Your task to perform on an android device: turn off notifications settings in the gmail app Image 0: 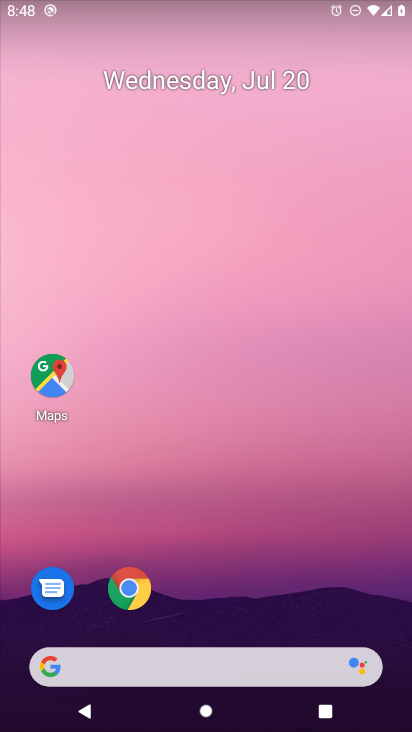
Step 0: drag from (30, 697) to (331, 17)
Your task to perform on an android device: turn off notifications settings in the gmail app Image 1: 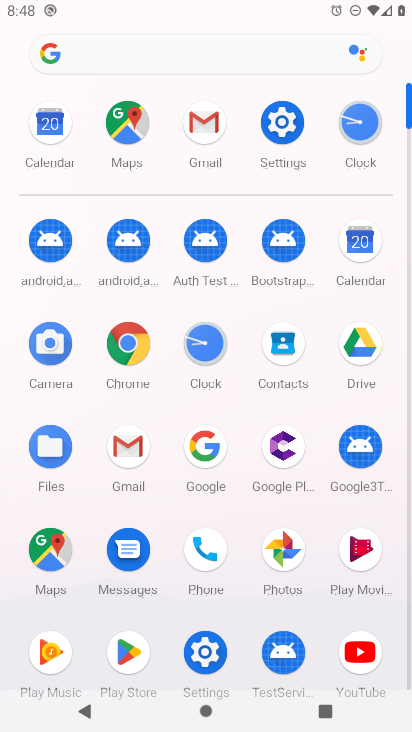
Step 1: click (214, 123)
Your task to perform on an android device: turn off notifications settings in the gmail app Image 2: 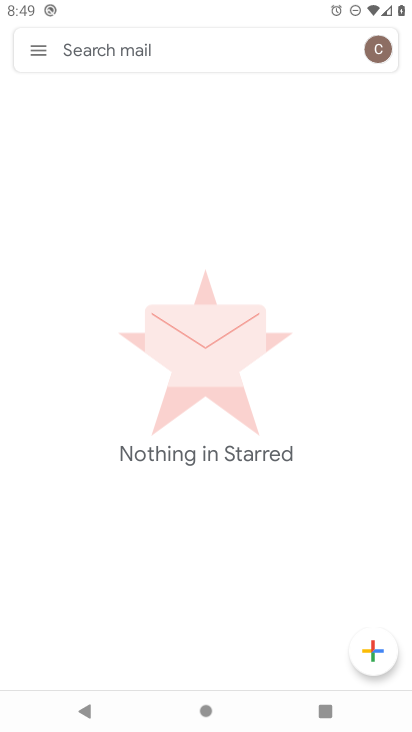
Step 2: click (39, 59)
Your task to perform on an android device: turn off notifications settings in the gmail app Image 3: 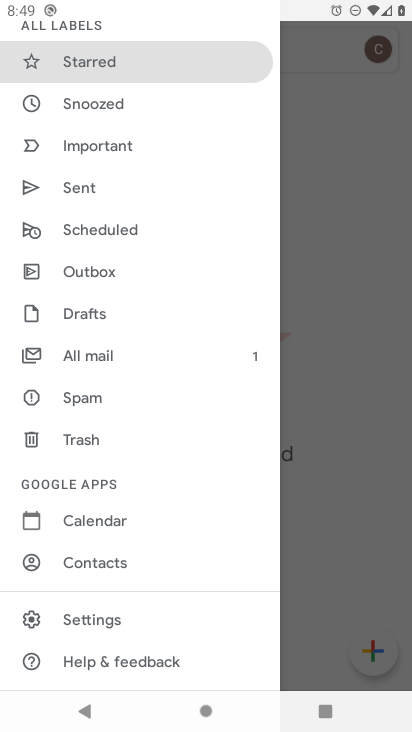
Step 3: click (100, 613)
Your task to perform on an android device: turn off notifications settings in the gmail app Image 4: 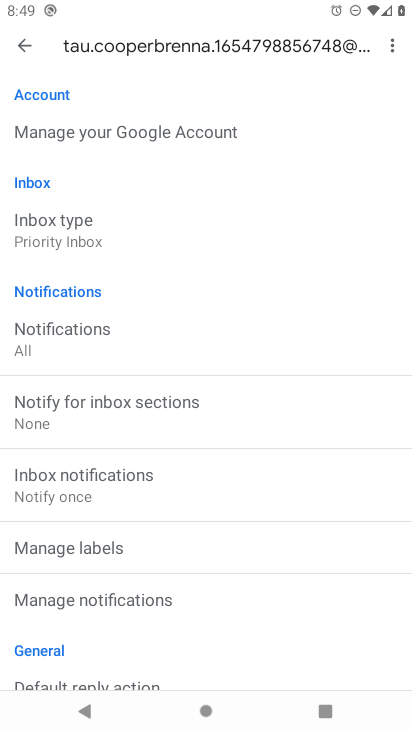
Step 4: click (77, 304)
Your task to perform on an android device: turn off notifications settings in the gmail app Image 5: 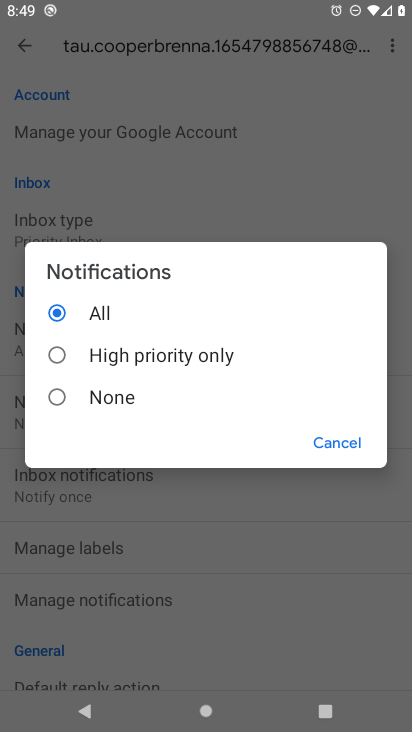
Step 5: click (323, 449)
Your task to perform on an android device: turn off notifications settings in the gmail app Image 6: 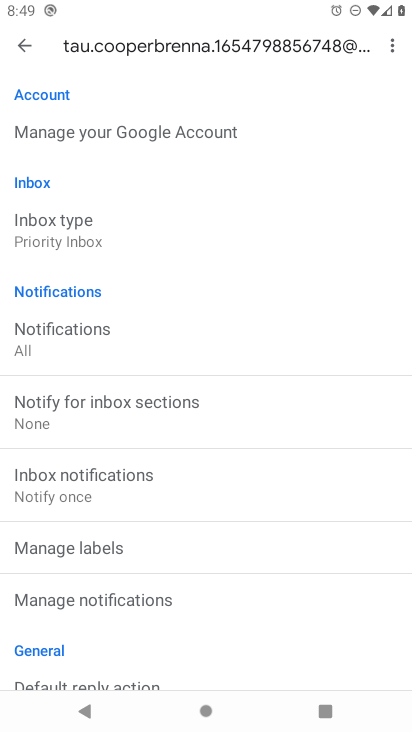
Step 6: task complete